Your task to perform on an android device: clear all cookies in the chrome app Image 0: 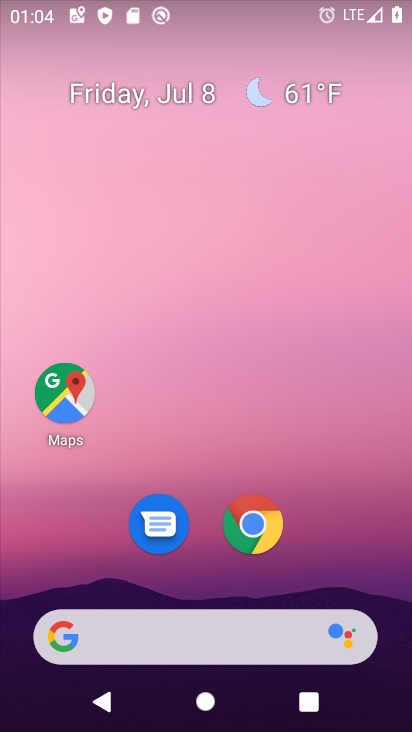
Step 0: click (257, 523)
Your task to perform on an android device: clear all cookies in the chrome app Image 1: 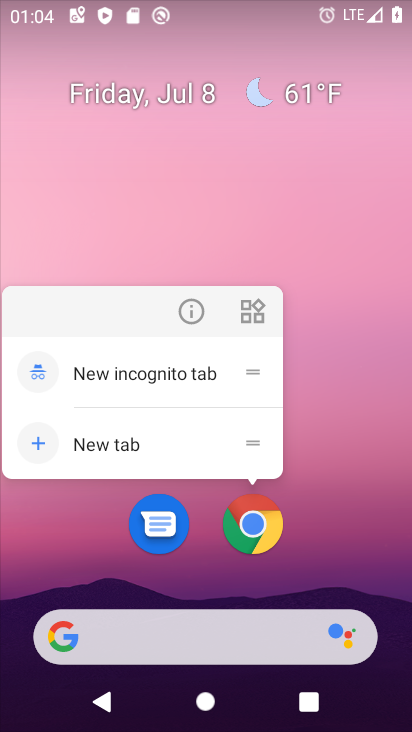
Step 1: click (259, 519)
Your task to perform on an android device: clear all cookies in the chrome app Image 2: 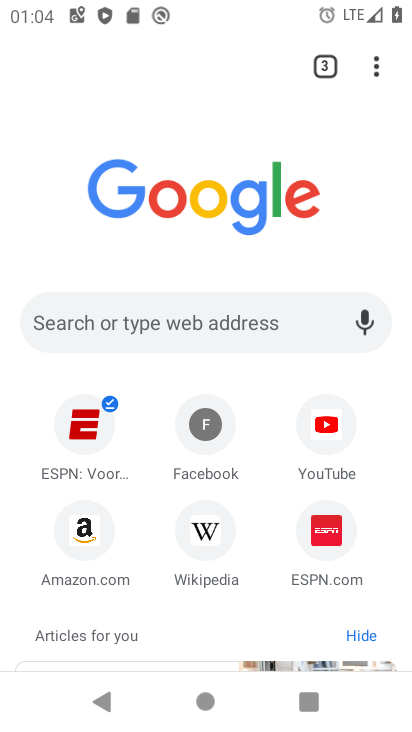
Step 2: click (374, 65)
Your task to perform on an android device: clear all cookies in the chrome app Image 3: 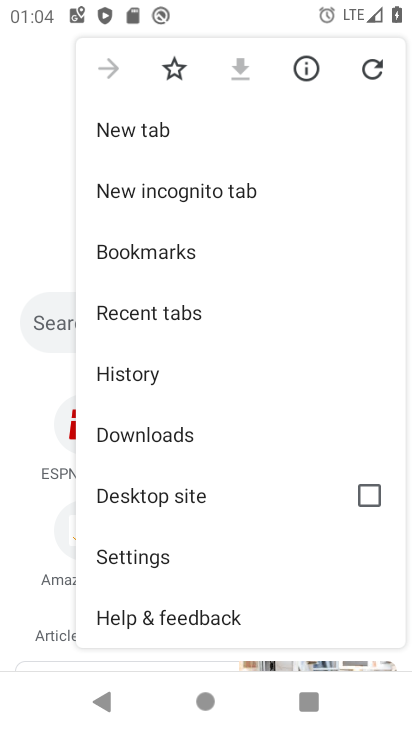
Step 3: click (152, 381)
Your task to perform on an android device: clear all cookies in the chrome app Image 4: 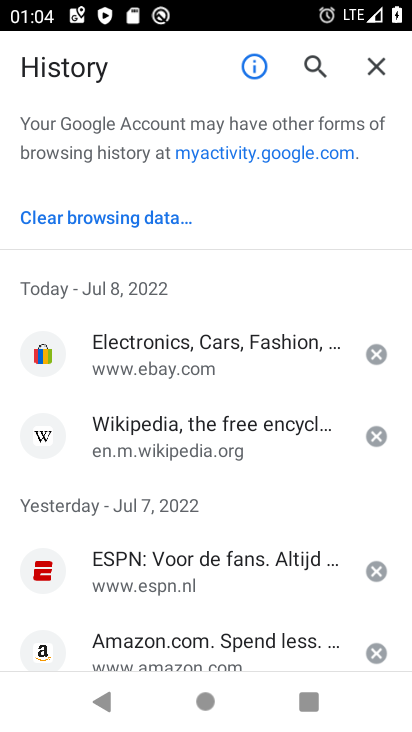
Step 4: click (149, 215)
Your task to perform on an android device: clear all cookies in the chrome app Image 5: 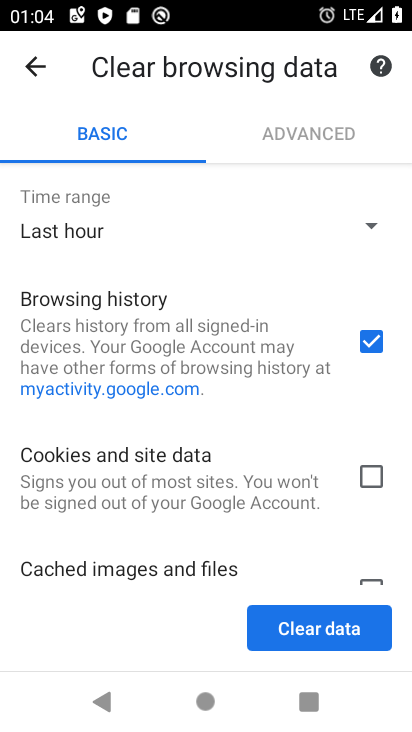
Step 5: click (373, 342)
Your task to perform on an android device: clear all cookies in the chrome app Image 6: 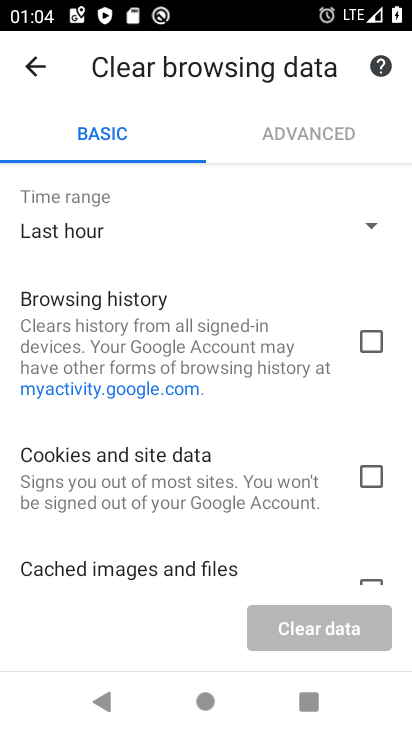
Step 6: click (373, 473)
Your task to perform on an android device: clear all cookies in the chrome app Image 7: 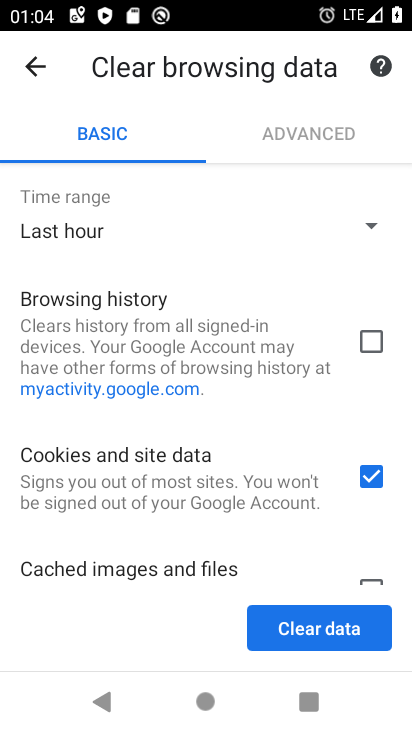
Step 7: click (324, 631)
Your task to perform on an android device: clear all cookies in the chrome app Image 8: 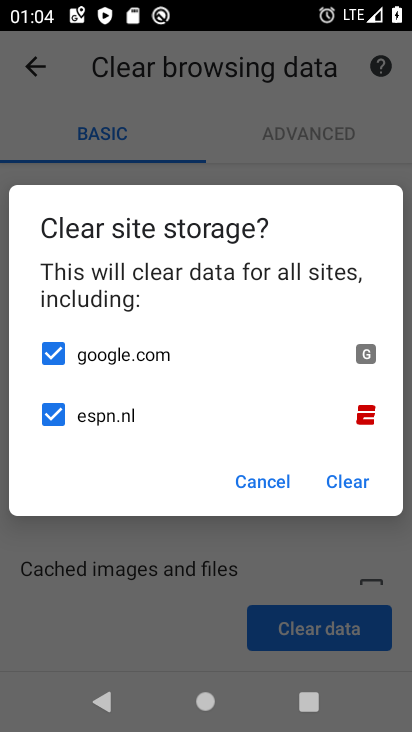
Step 8: click (355, 473)
Your task to perform on an android device: clear all cookies in the chrome app Image 9: 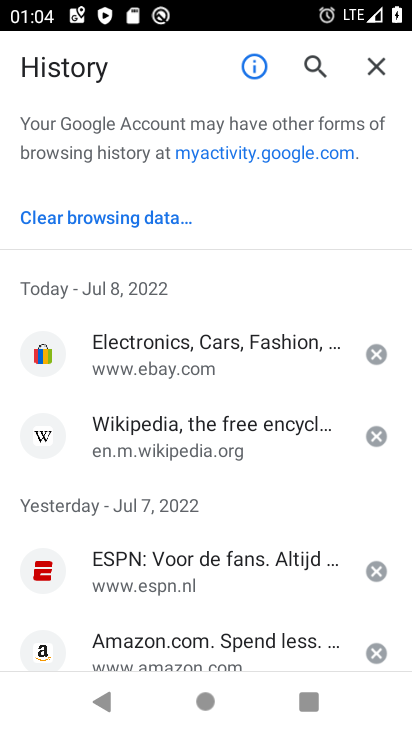
Step 9: task complete